Your task to perform on an android device: refresh tabs in the chrome app Image 0: 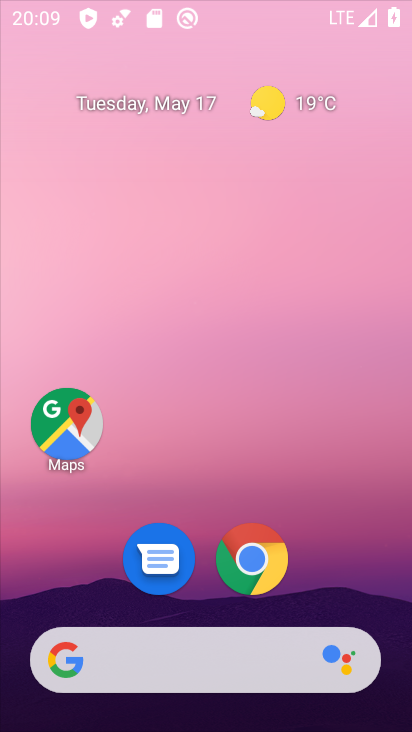
Step 0: click (319, 17)
Your task to perform on an android device: refresh tabs in the chrome app Image 1: 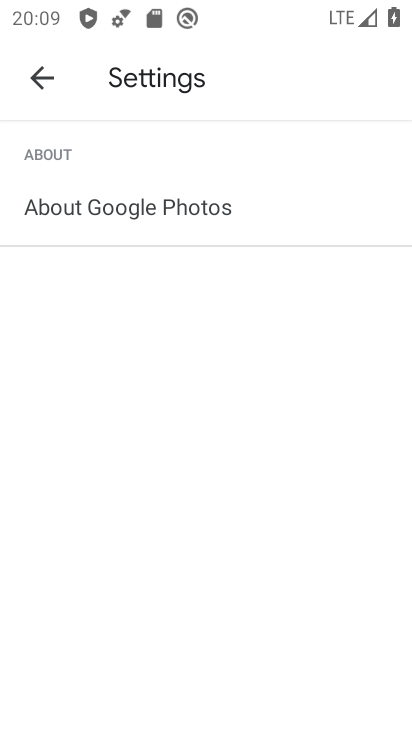
Step 1: drag from (184, 541) to (408, 16)
Your task to perform on an android device: refresh tabs in the chrome app Image 2: 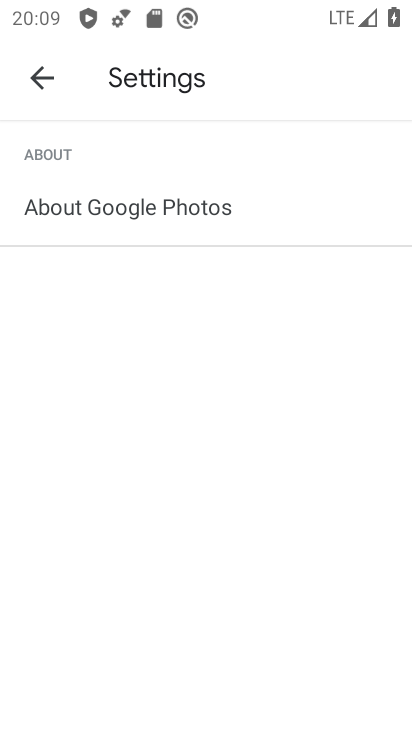
Step 2: drag from (146, 691) to (227, 183)
Your task to perform on an android device: refresh tabs in the chrome app Image 3: 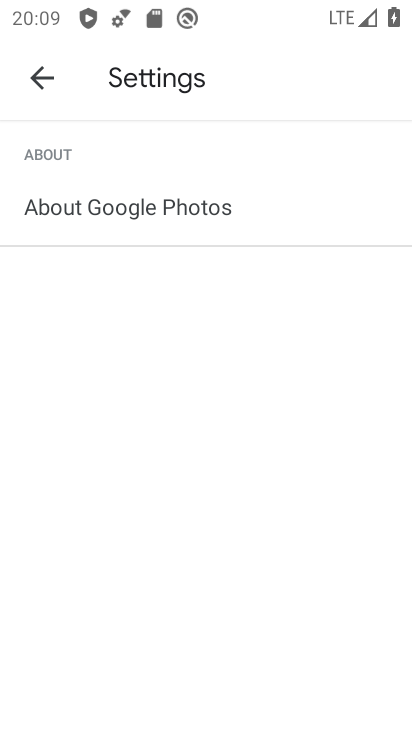
Step 3: press home button
Your task to perform on an android device: refresh tabs in the chrome app Image 4: 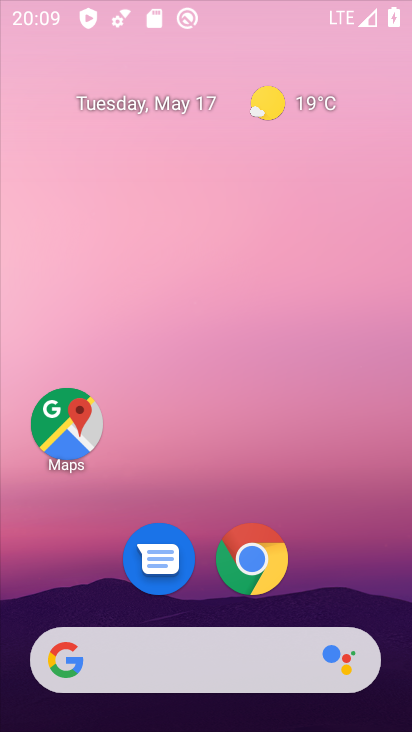
Step 4: drag from (179, 624) to (221, 83)
Your task to perform on an android device: refresh tabs in the chrome app Image 5: 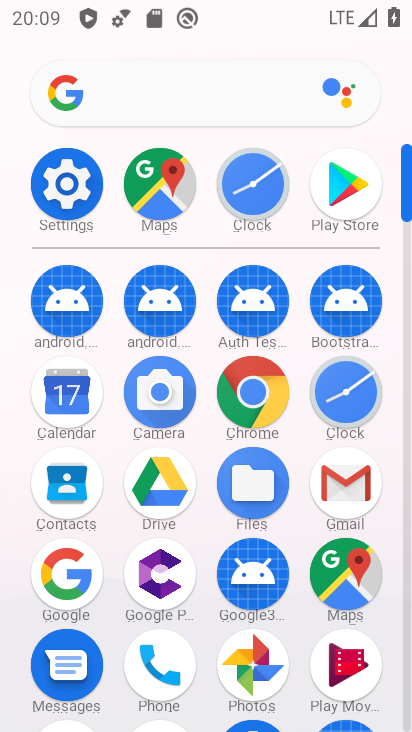
Step 5: click (251, 396)
Your task to perform on an android device: refresh tabs in the chrome app Image 6: 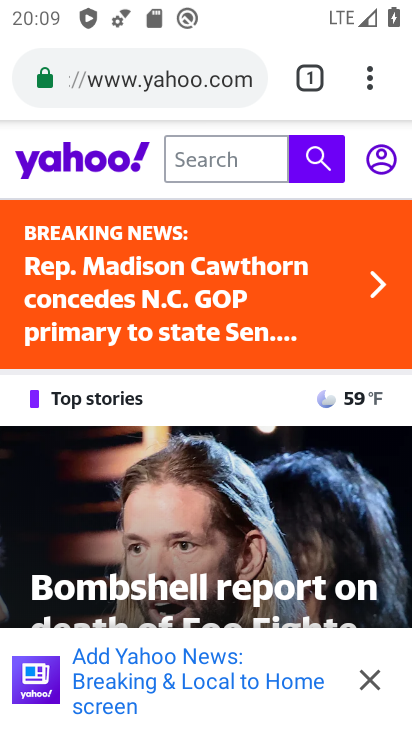
Step 6: click (380, 77)
Your task to perform on an android device: refresh tabs in the chrome app Image 7: 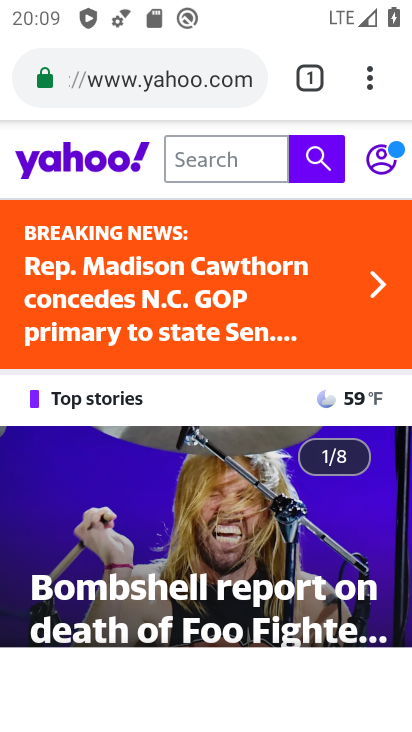
Step 7: task complete